Your task to perform on an android device: toggle show notifications on the lock screen Image 0: 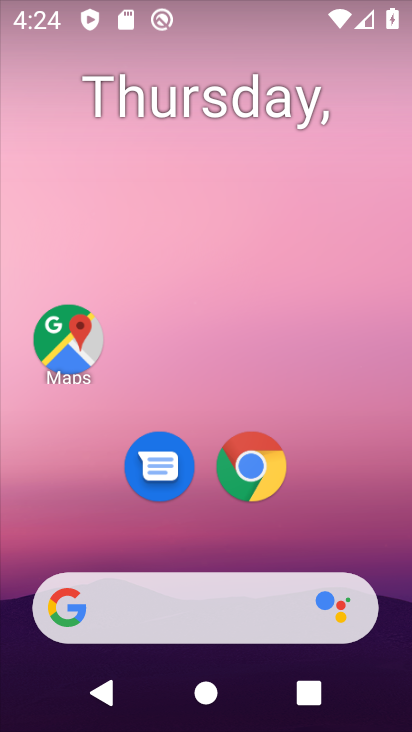
Step 0: press home button
Your task to perform on an android device: toggle show notifications on the lock screen Image 1: 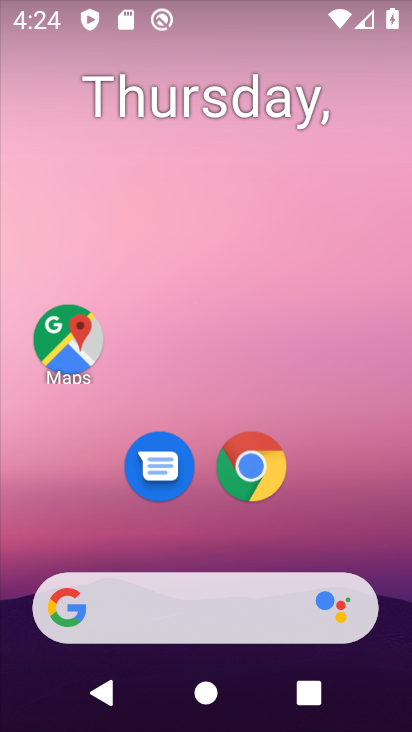
Step 1: drag from (206, 547) to (243, 60)
Your task to perform on an android device: toggle show notifications on the lock screen Image 2: 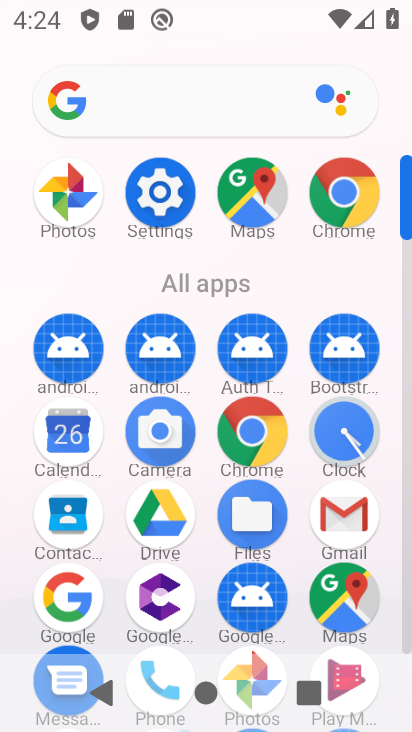
Step 2: click (157, 184)
Your task to perform on an android device: toggle show notifications on the lock screen Image 3: 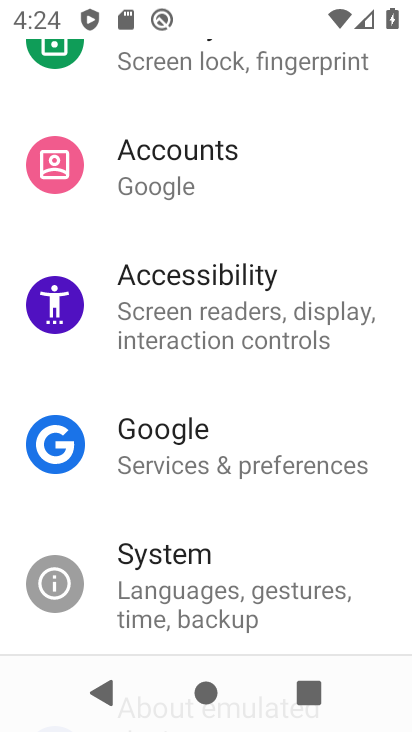
Step 3: drag from (109, 80) to (124, 676)
Your task to perform on an android device: toggle show notifications on the lock screen Image 4: 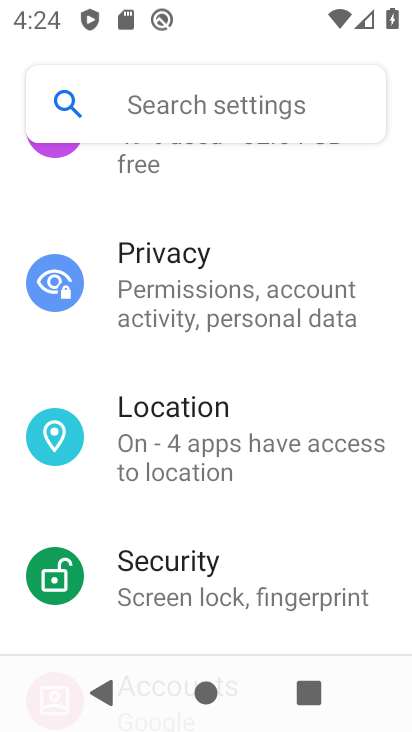
Step 4: drag from (102, 164) to (96, 685)
Your task to perform on an android device: toggle show notifications on the lock screen Image 5: 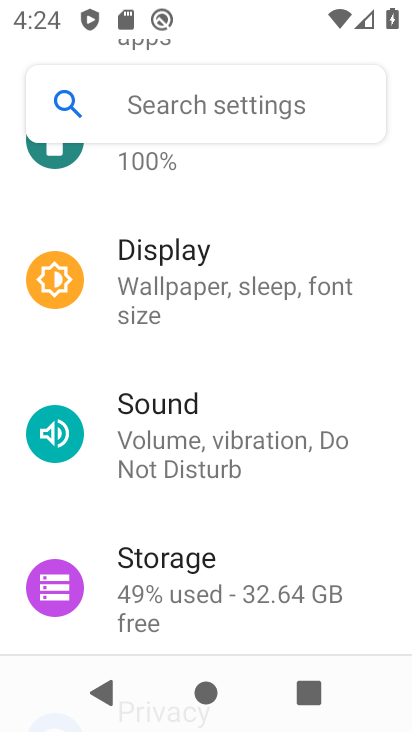
Step 5: drag from (109, 148) to (118, 620)
Your task to perform on an android device: toggle show notifications on the lock screen Image 6: 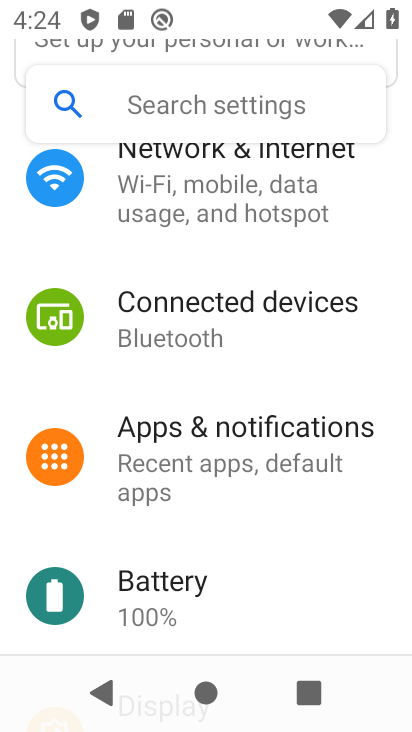
Step 6: click (108, 448)
Your task to perform on an android device: toggle show notifications on the lock screen Image 7: 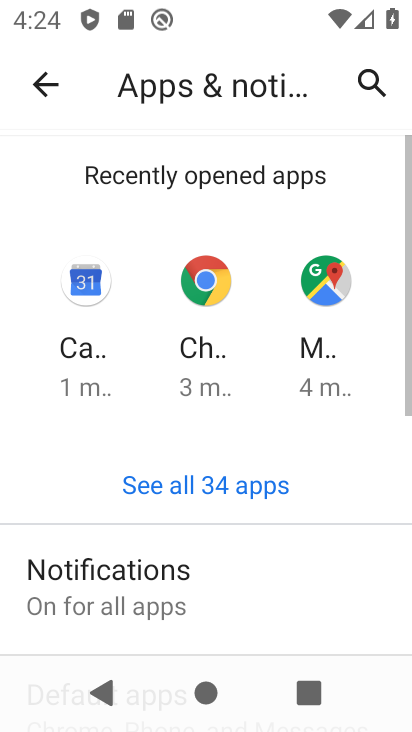
Step 7: click (204, 586)
Your task to perform on an android device: toggle show notifications on the lock screen Image 8: 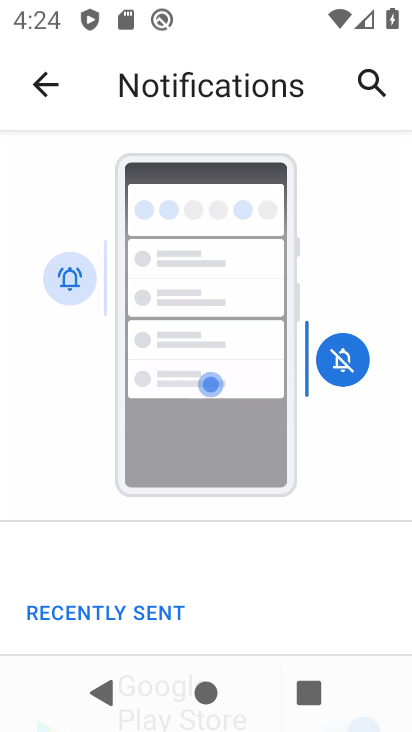
Step 8: drag from (230, 604) to (253, 171)
Your task to perform on an android device: toggle show notifications on the lock screen Image 9: 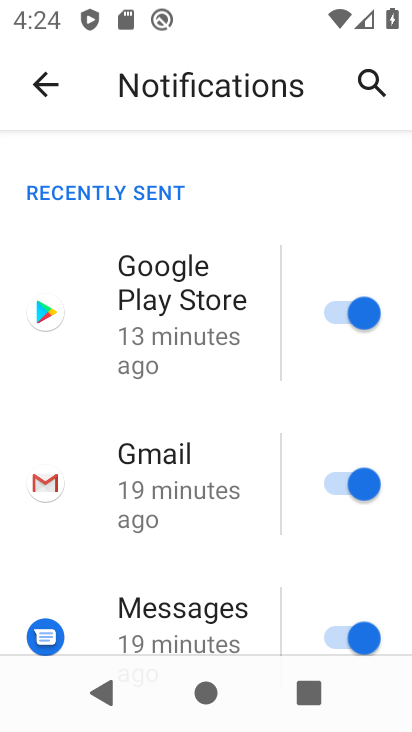
Step 9: drag from (234, 569) to (240, 94)
Your task to perform on an android device: toggle show notifications on the lock screen Image 10: 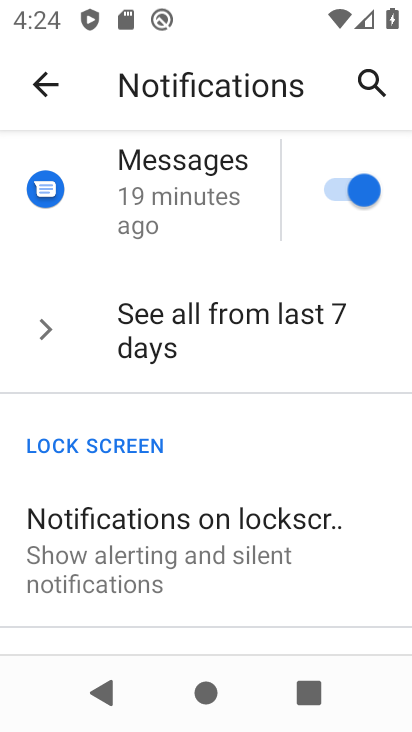
Step 10: click (259, 561)
Your task to perform on an android device: toggle show notifications on the lock screen Image 11: 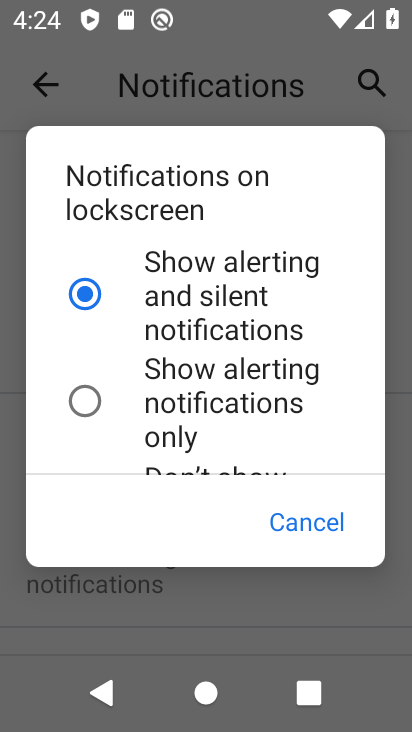
Step 11: click (88, 391)
Your task to perform on an android device: toggle show notifications on the lock screen Image 12: 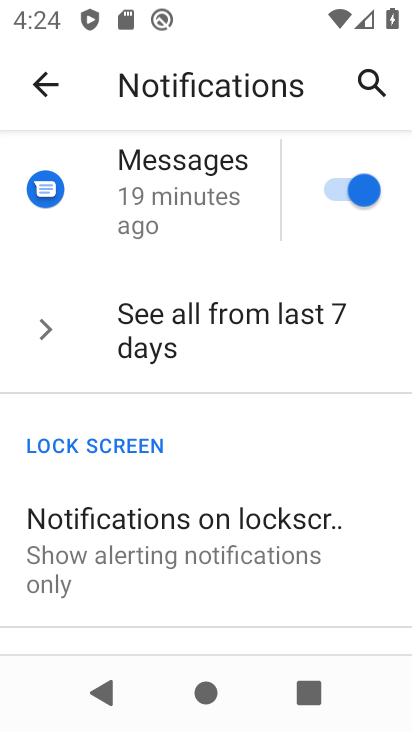
Step 12: task complete